Your task to perform on an android device: Open display settings Image 0: 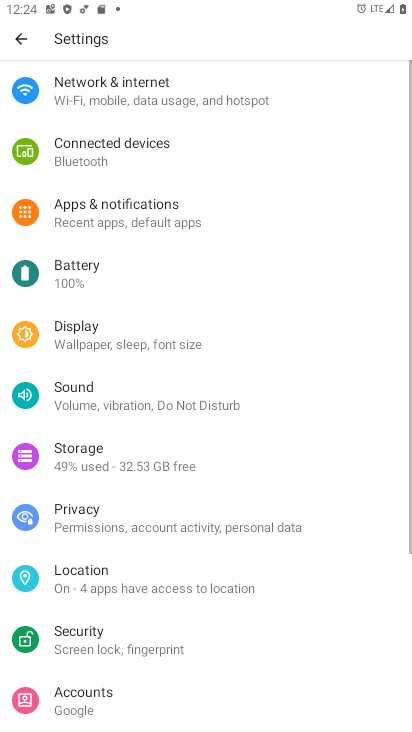
Step 0: press home button
Your task to perform on an android device: Open display settings Image 1: 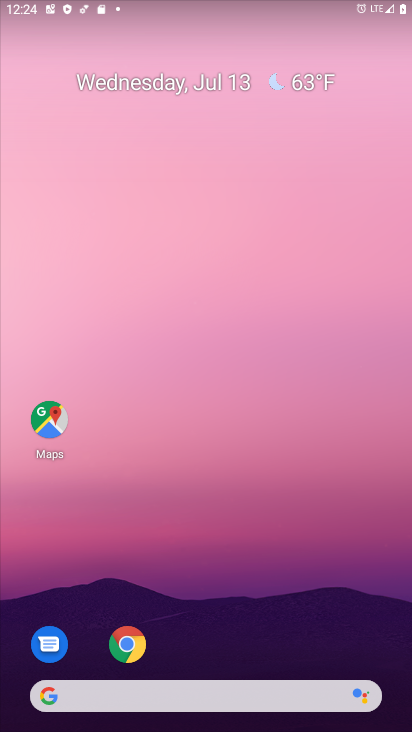
Step 1: drag from (197, 703) to (247, 338)
Your task to perform on an android device: Open display settings Image 2: 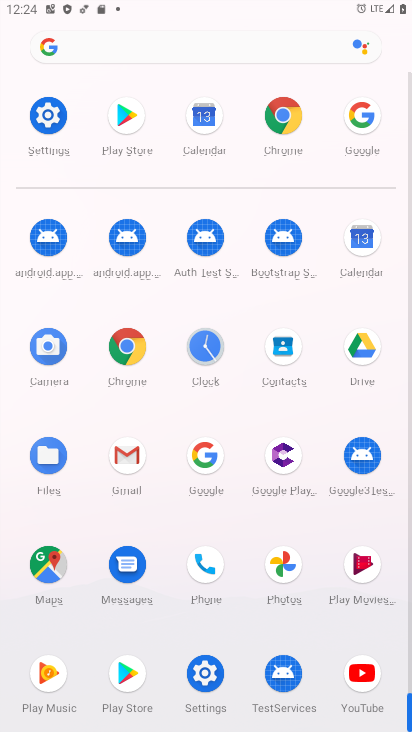
Step 2: click (47, 116)
Your task to perform on an android device: Open display settings Image 3: 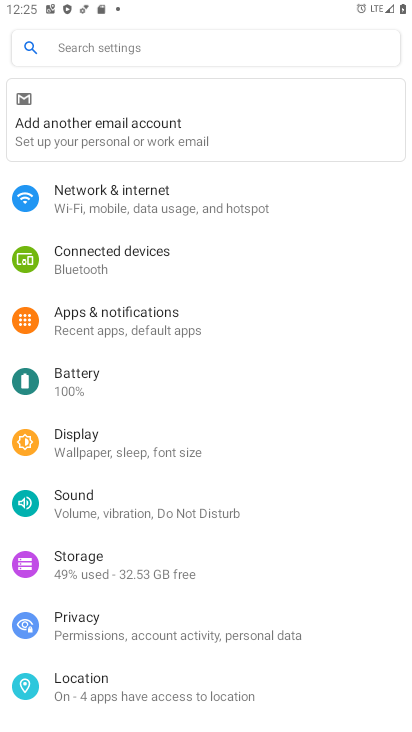
Step 3: click (89, 446)
Your task to perform on an android device: Open display settings Image 4: 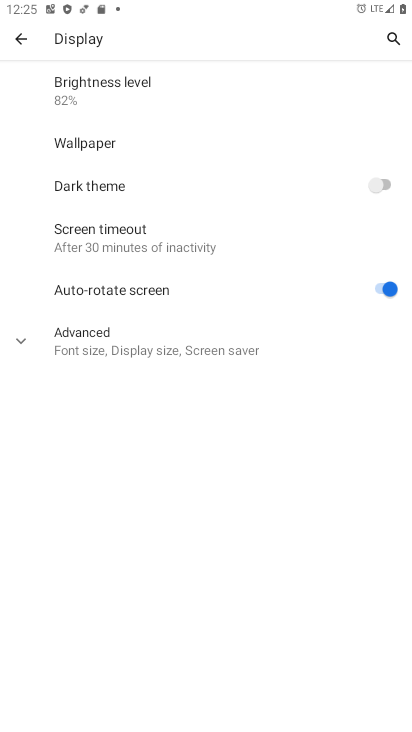
Step 4: task complete